Your task to perform on an android device: Go to ESPN.com Image 0: 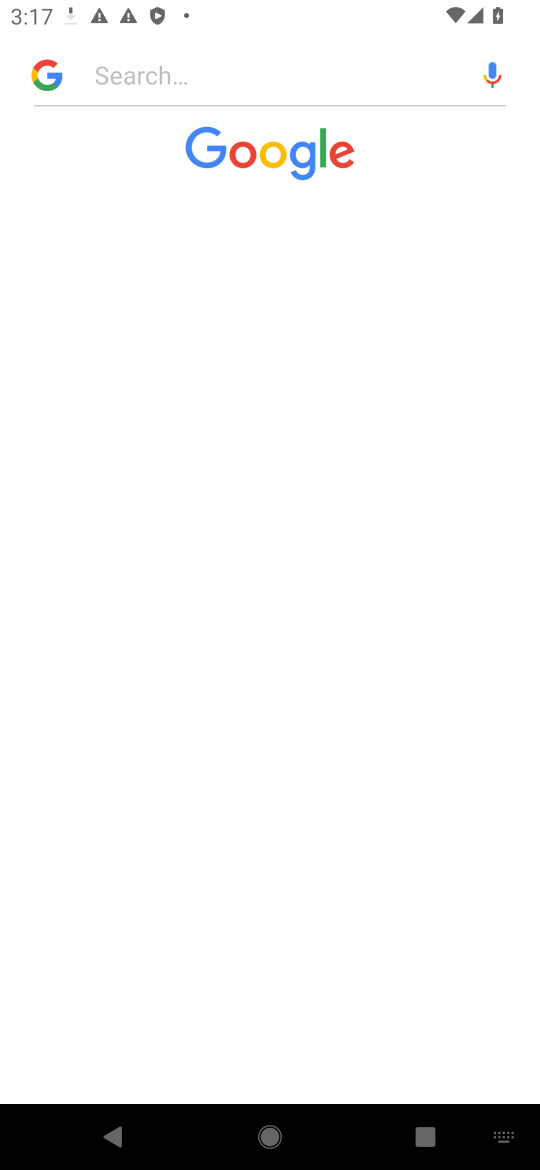
Step 0: press home button
Your task to perform on an android device: Go to ESPN.com Image 1: 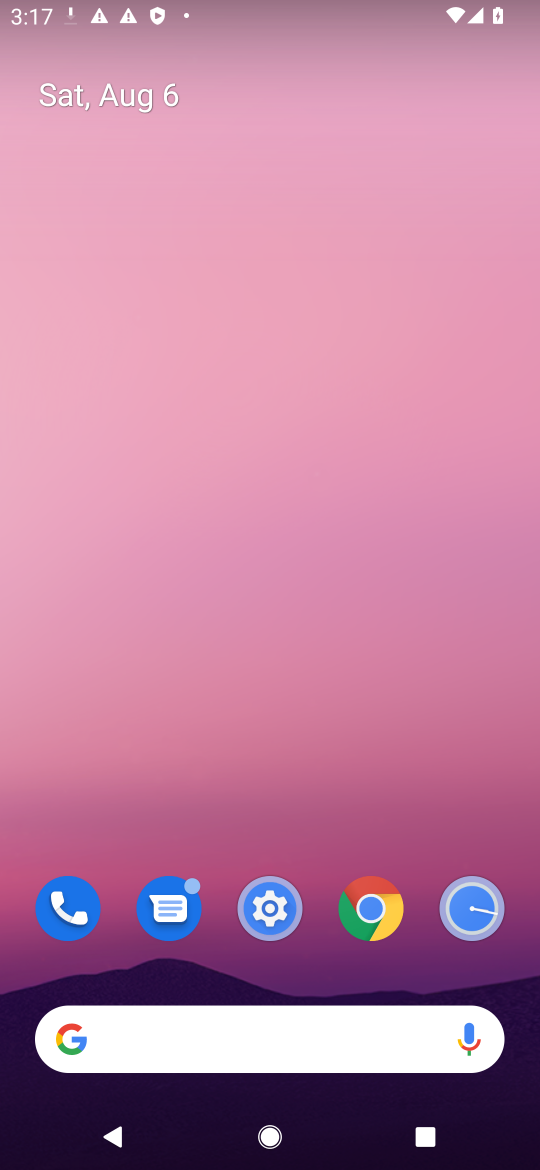
Step 1: click (373, 915)
Your task to perform on an android device: Go to ESPN.com Image 2: 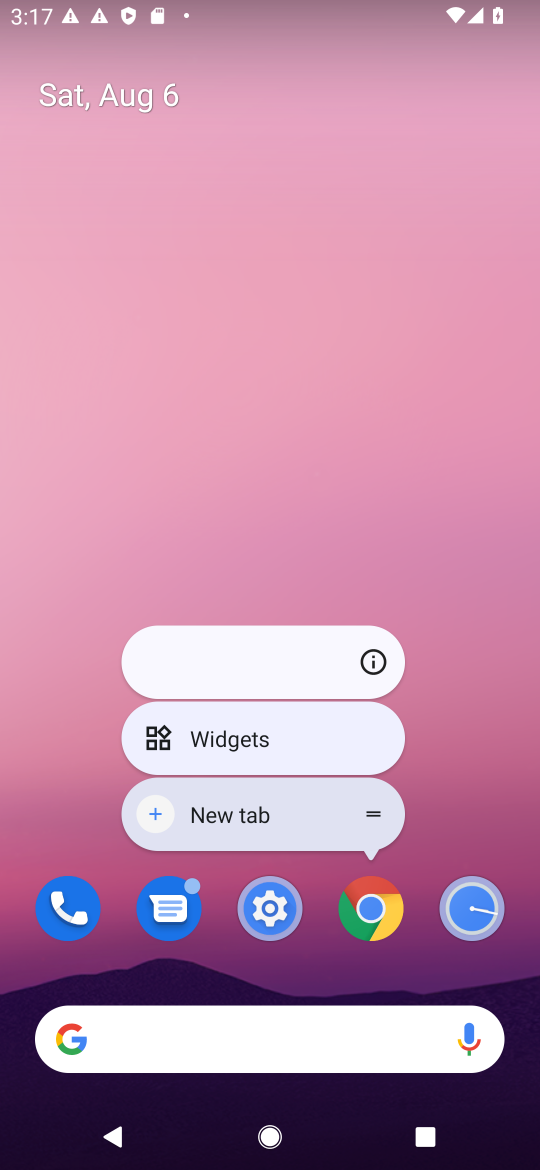
Step 2: click (370, 918)
Your task to perform on an android device: Go to ESPN.com Image 3: 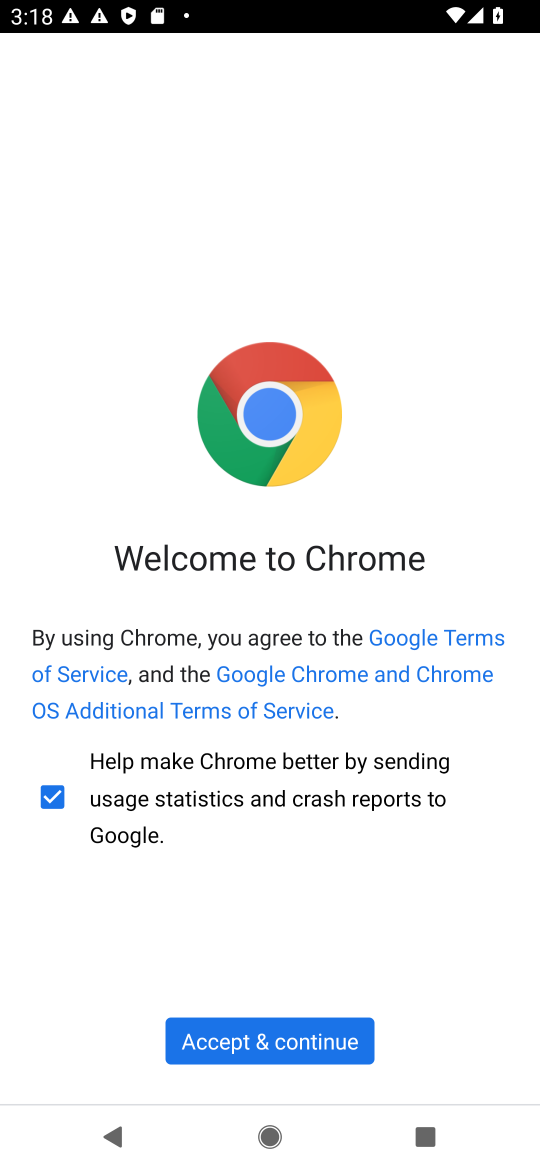
Step 3: click (301, 1045)
Your task to perform on an android device: Go to ESPN.com Image 4: 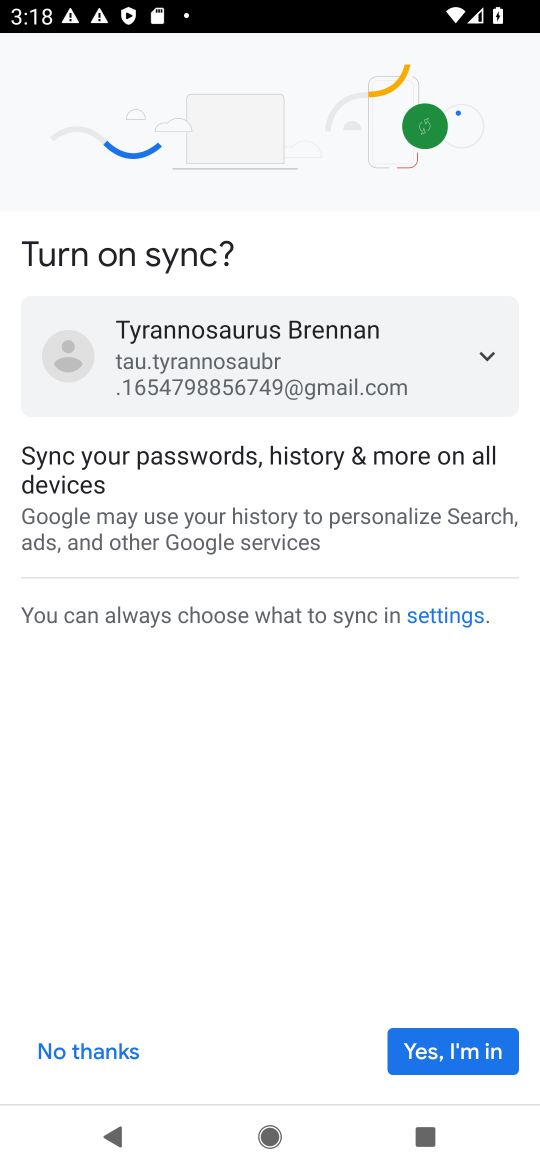
Step 4: click (489, 1058)
Your task to perform on an android device: Go to ESPN.com Image 5: 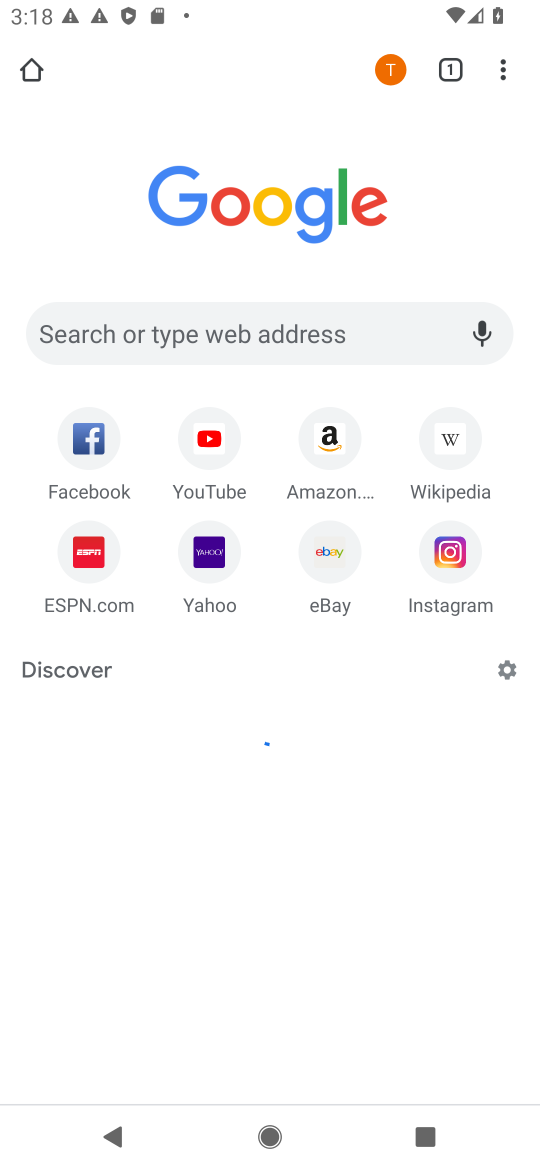
Step 5: click (84, 579)
Your task to perform on an android device: Go to ESPN.com Image 6: 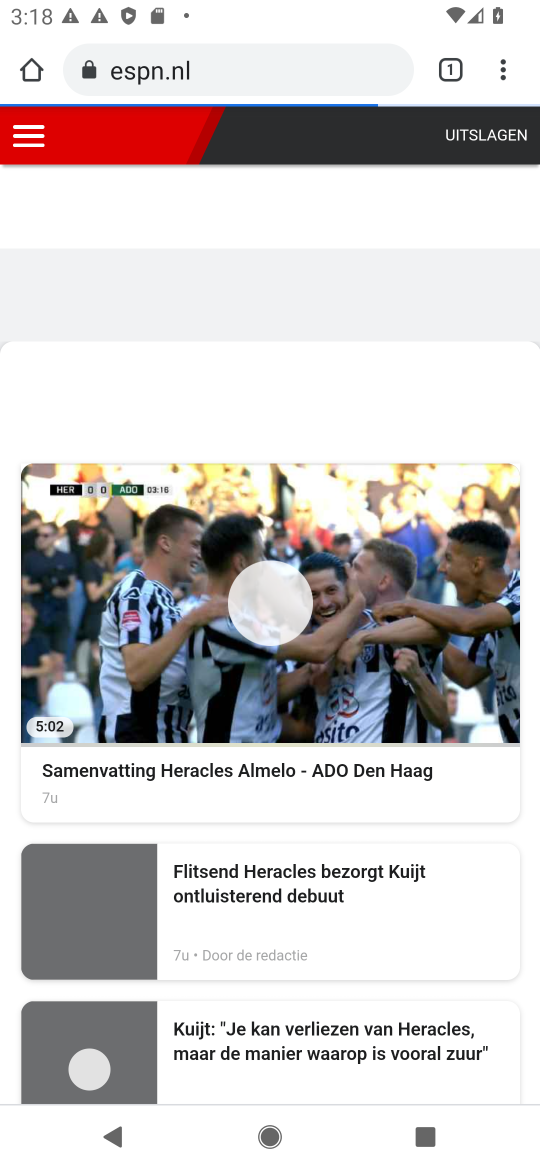
Step 6: task complete